Your task to perform on an android device: Search for pizza restaurants on Maps Image 0: 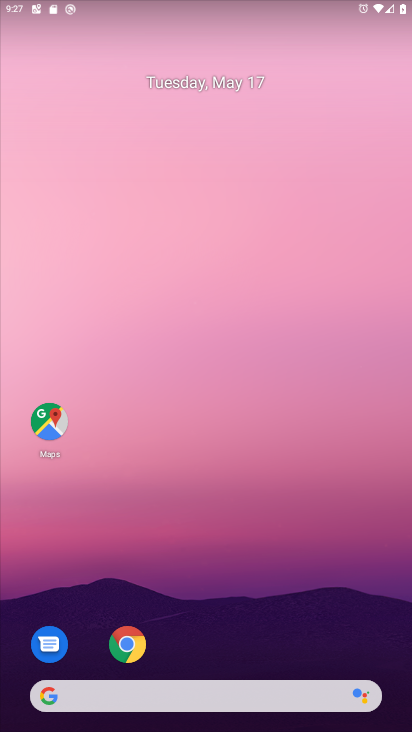
Step 0: click (48, 415)
Your task to perform on an android device: Search for pizza restaurants on Maps Image 1: 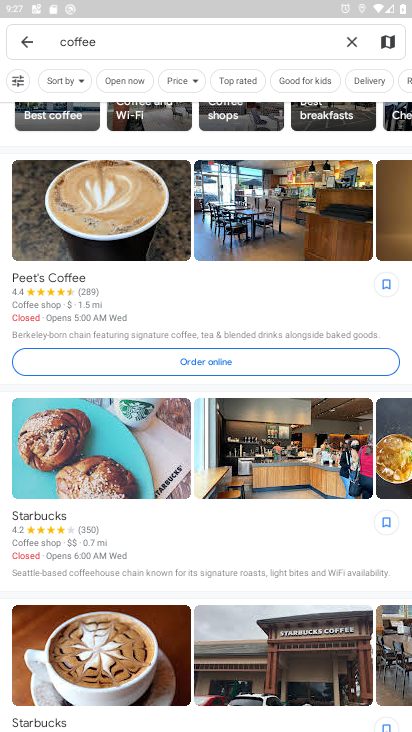
Step 1: click (354, 38)
Your task to perform on an android device: Search for pizza restaurants on Maps Image 2: 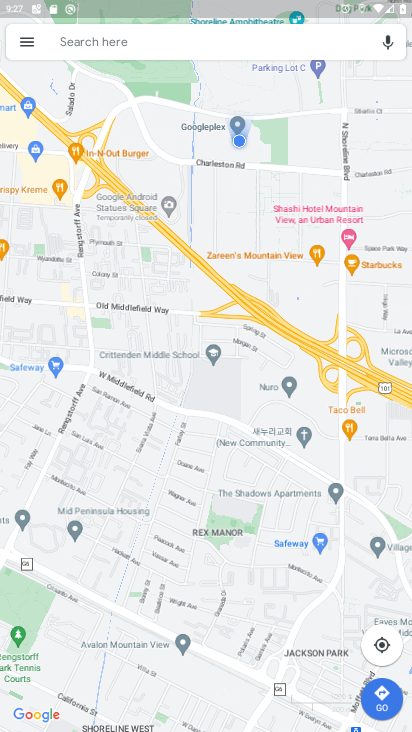
Step 2: click (111, 35)
Your task to perform on an android device: Search for pizza restaurants on Maps Image 3: 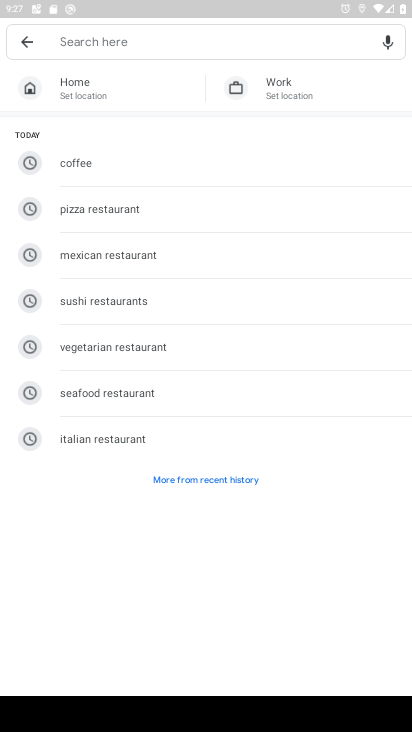
Step 3: type "pizza"
Your task to perform on an android device: Search for pizza restaurants on Maps Image 4: 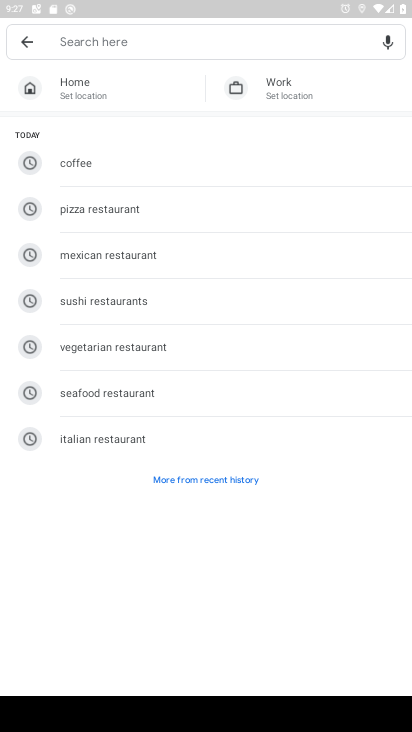
Step 4: click (151, 206)
Your task to perform on an android device: Search for pizza restaurants on Maps Image 5: 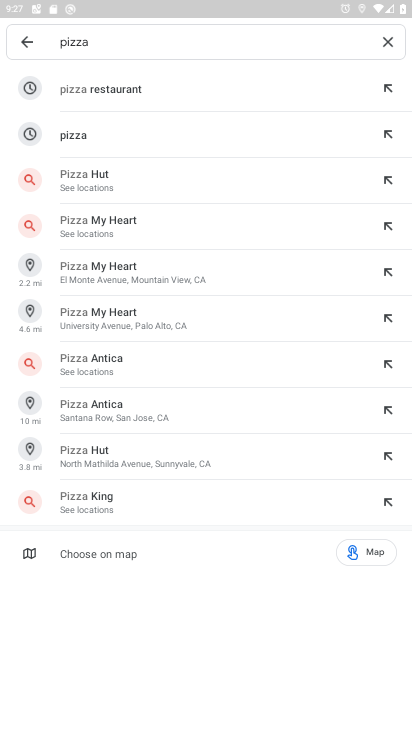
Step 5: click (157, 81)
Your task to perform on an android device: Search for pizza restaurants on Maps Image 6: 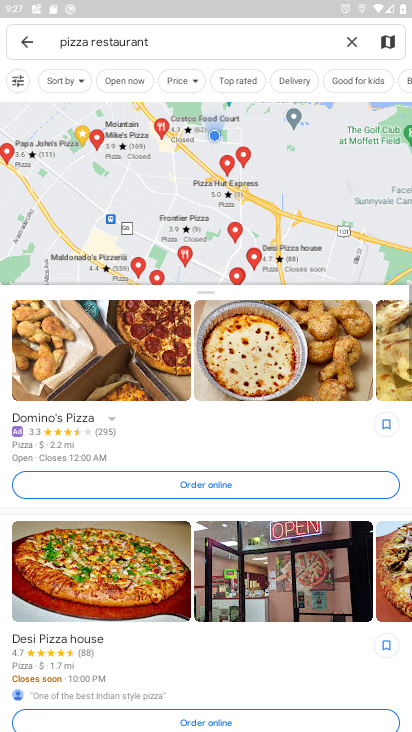
Step 6: drag from (190, 510) to (204, 133)
Your task to perform on an android device: Search for pizza restaurants on Maps Image 7: 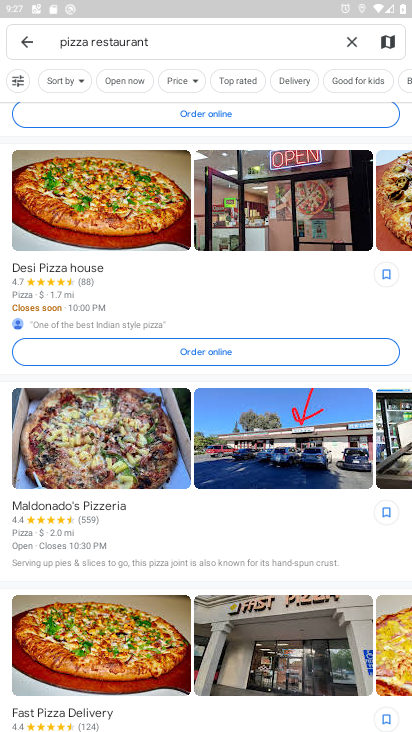
Step 7: drag from (194, 583) to (190, 13)
Your task to perform on an android device: Search for pizza restaurants on Maps Image 8: 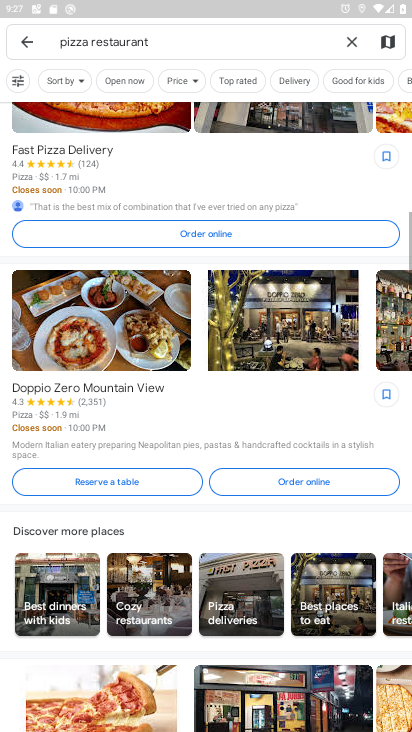
Step 8: drag from (198, 532) to (198, 340)
Your task to perform on an android device: Search for pizza restaurants on Maps Image 9: 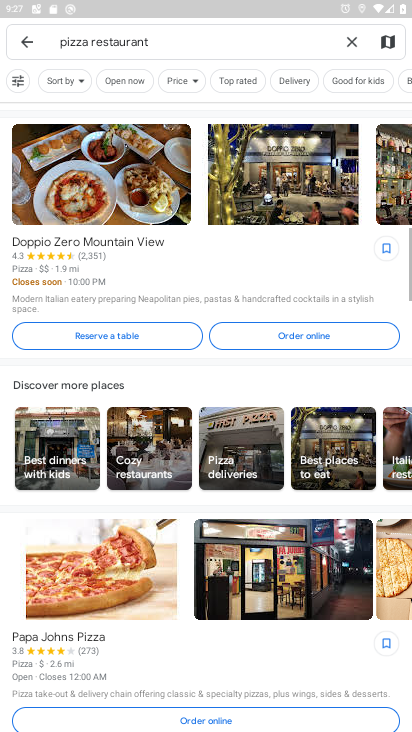
Step 9: click (198, 156)
Your task to perform on an android device: Search for pizza restaurants on Maps Image 10: 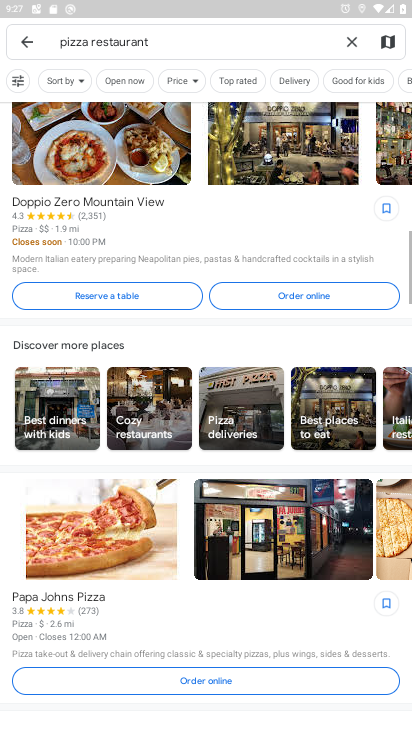
Step 10: click (198, 68)
Your task to perform on an android device: Search for pizza restaurants on Maps Image 11: 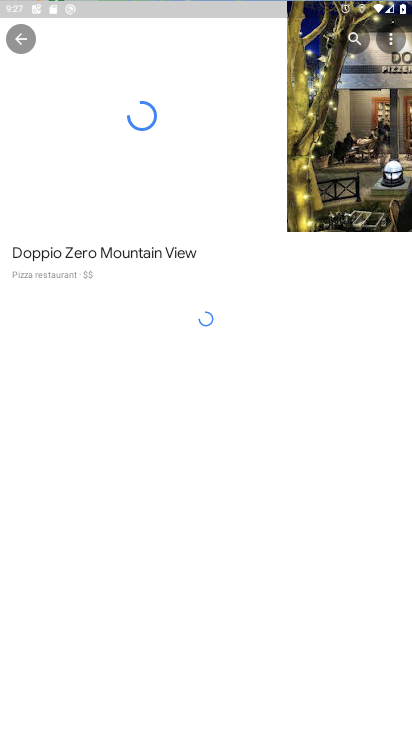
Step 11: task complete